Your task to perform on an android device: Open Chrome and go to the settings page Image 0: 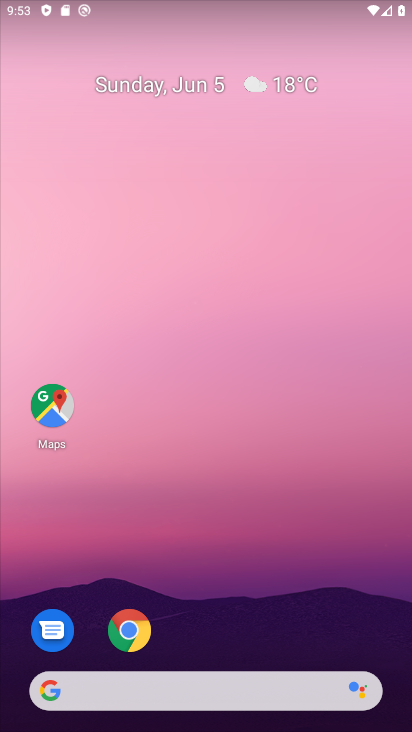
Step 0: click (133, 633)
Your task to perform on an android device: Open Chrome and go to the settings page Image 1: 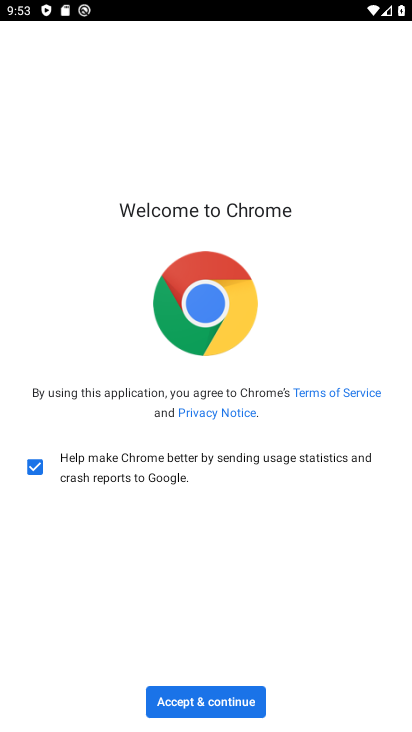
Step 1: click (211, 717)
Your task to perform on an android device: Open Chrome and go to the settings page Image 2: 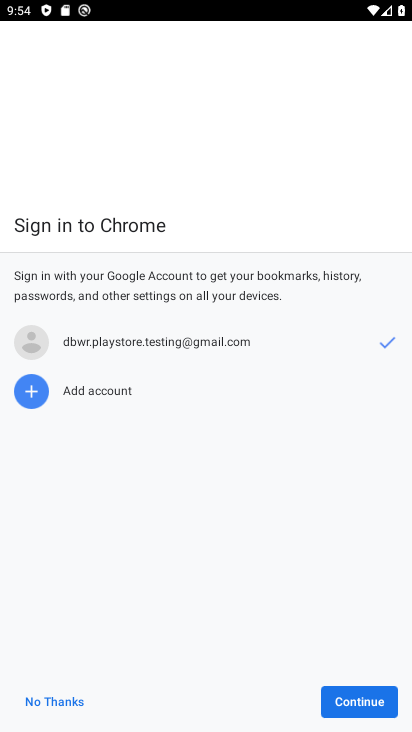
Step 2: click (359, 695)
Your task to perform on an android device: Open Chrome and go to the settings page Image 3: 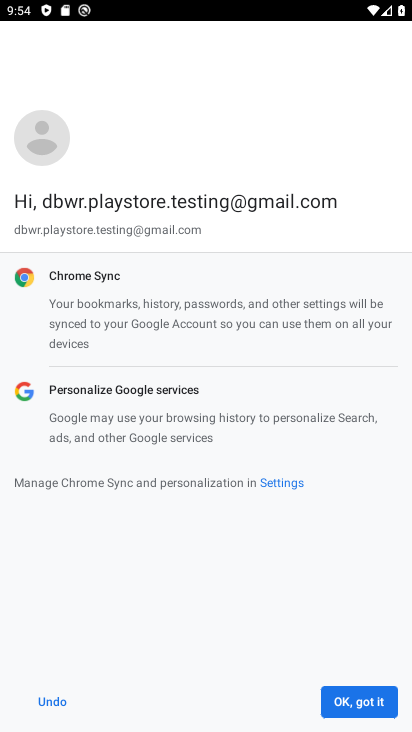
Step 3: click (358, 698)
Your task to perform on an android device: Open Chrome and go to the settings page Image 4: 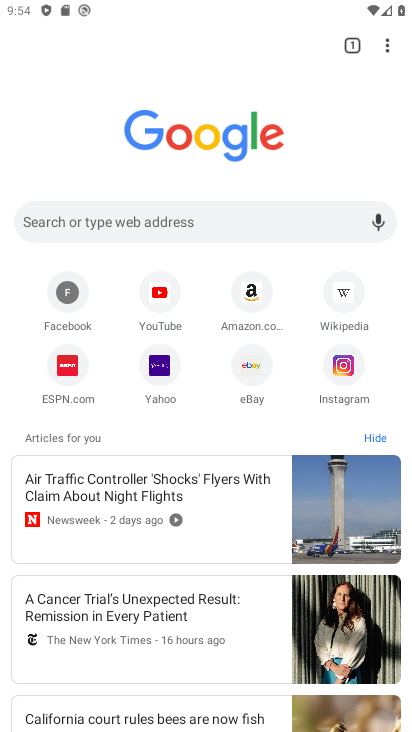
Step 4: click (390, 47)
Your task to perform on an android device: Open Chrome and go to the settings page Image 5: 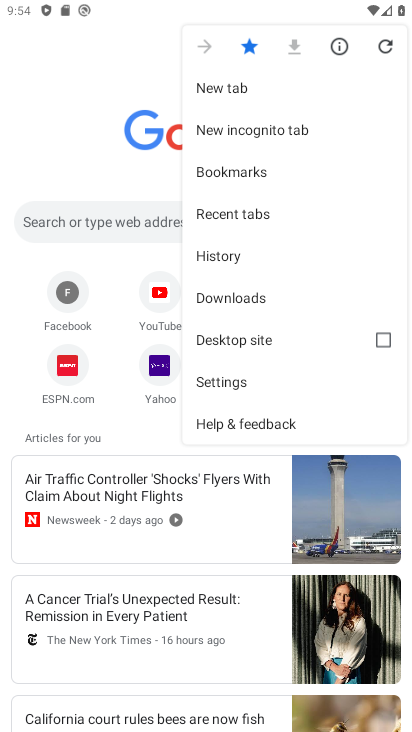
Step 5: click (232, 387)
Your task to perform on an android device: Open Chrome and go to the settings page Image 6: 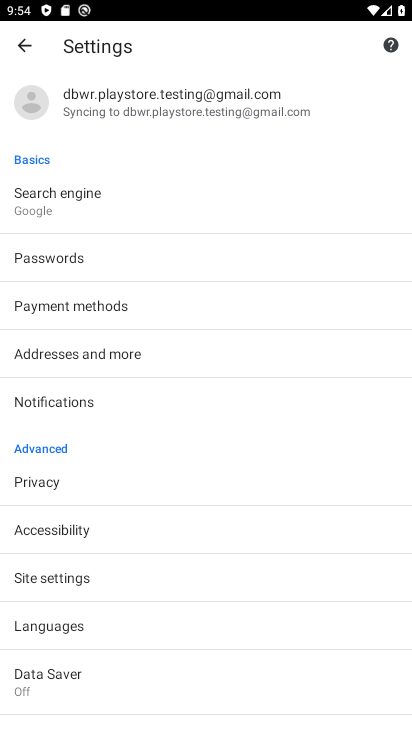
Step 6: task complete